Your task to perform on an android device: Search for Mexican restaurants on Maps Image 0: 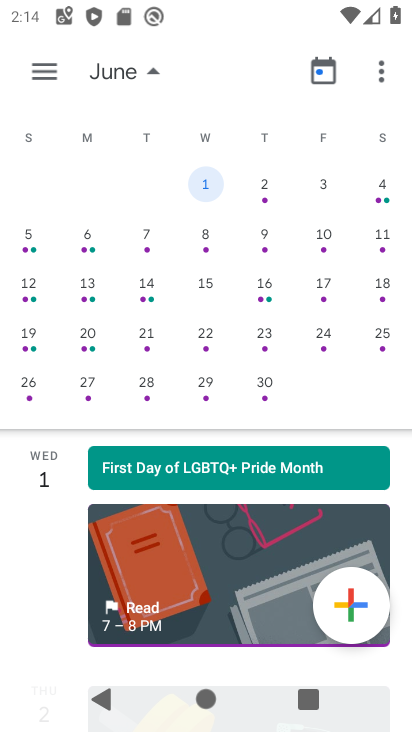
Step 0: press home button
Your task to perform on an android device: Search for Mexican restaurants on Maps Image 1: 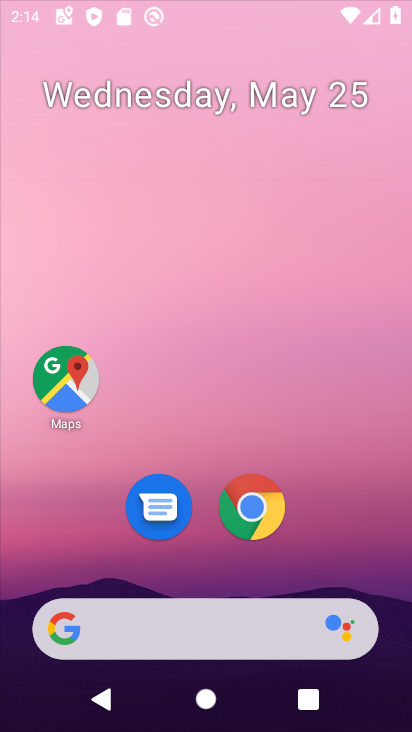
Step 1: drag from (215, 621) to (244, 126)
Your task to perform on an android device: Search for Mexican restaurants on Maps Image 2: 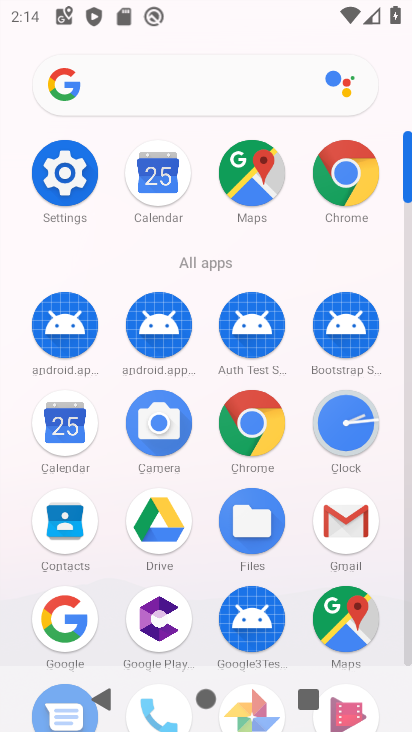
Step 2: drag from (193, 456) to (221, 191)
Your task to perform on an android device: Search for Mexican restaurants on Maps Image 3: 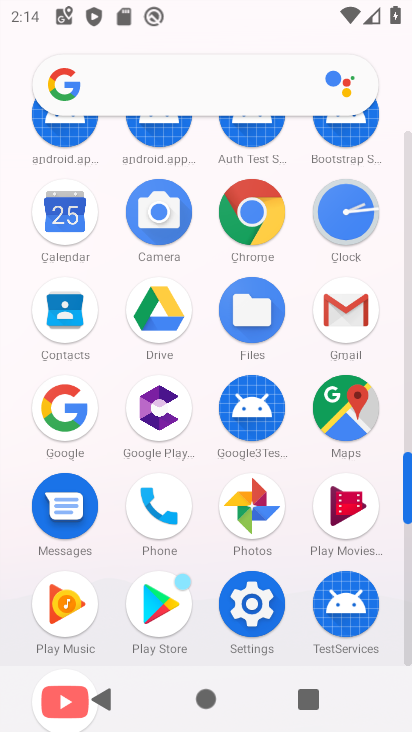
Step 3: click (340, 404)
Your task to perform on an android device: Search for Mexican restaurants on Maps Image 4: 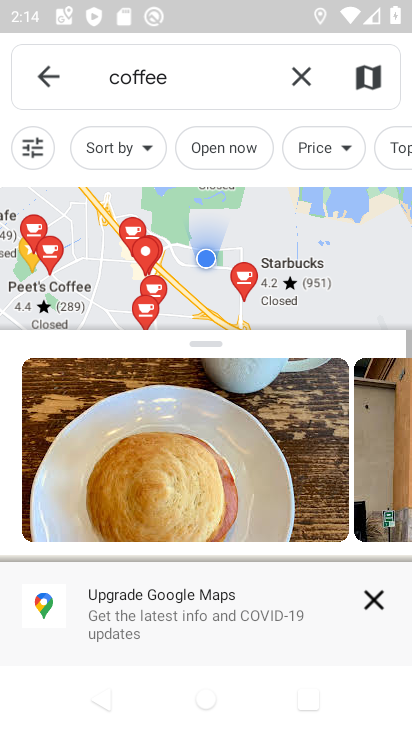
Step 4: click (297, 79)
Your task to perform on an android device: Search for Mexican restaurants on Maps Image 5: 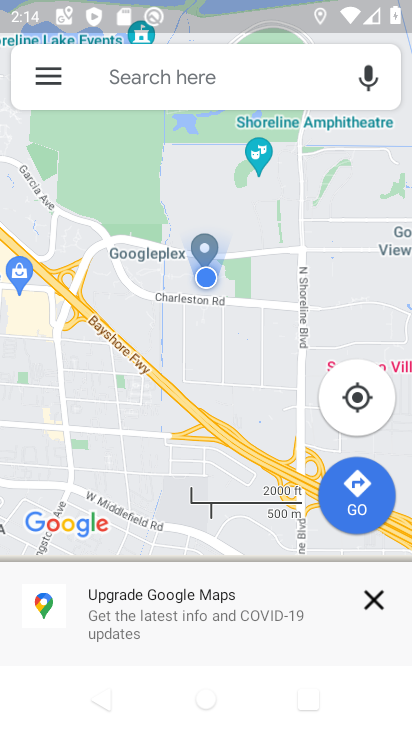
Step 5: click (236, 86)
Your task to perform on an android device: Search for Mexican restaurants on Maps Image 6: 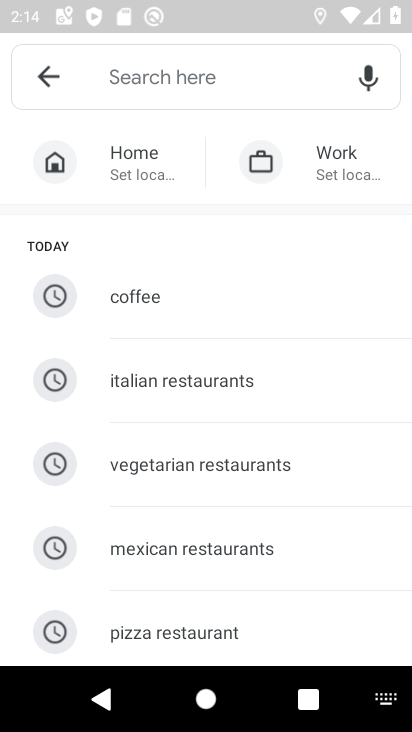
Step 6: click (247, 553)
Your task to perform on an android device: Search for Mexican restaurants on Maps Image 7: 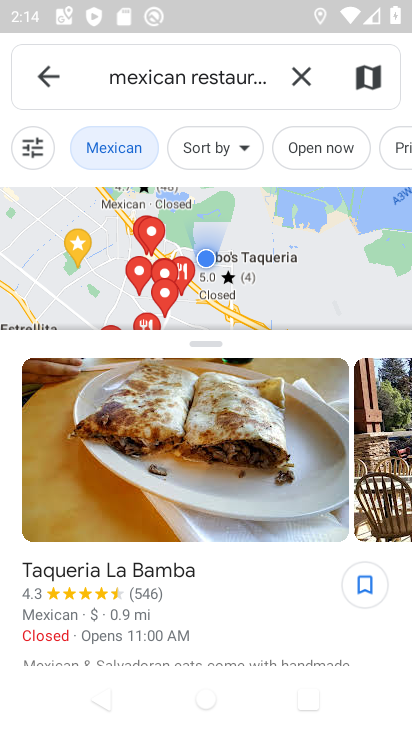
Step 7: task complete